Your task to perform on an android device: turn off picture-in-picture Image 0: 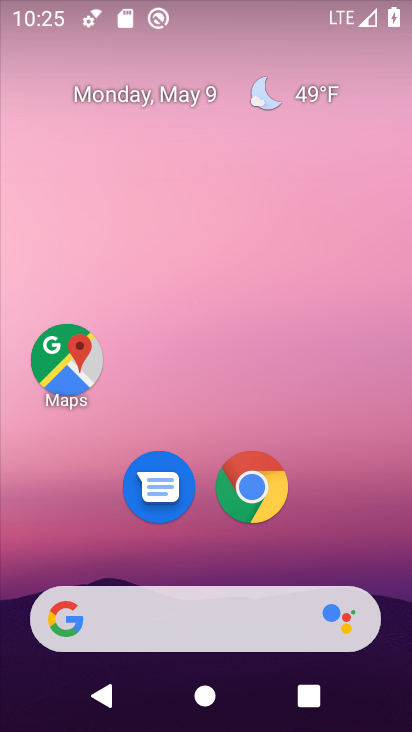
Step 0: drag from (295, 454) to (103, 107)
Your task to perform on an android device: turn off picture-in-picture Image 1: 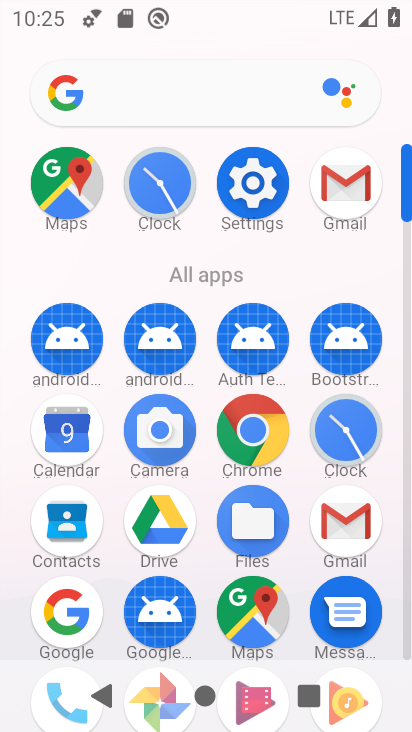
Step 1: click (251, 192)
Your task to perform on an android device: turn off picture-in-picture Image 2: 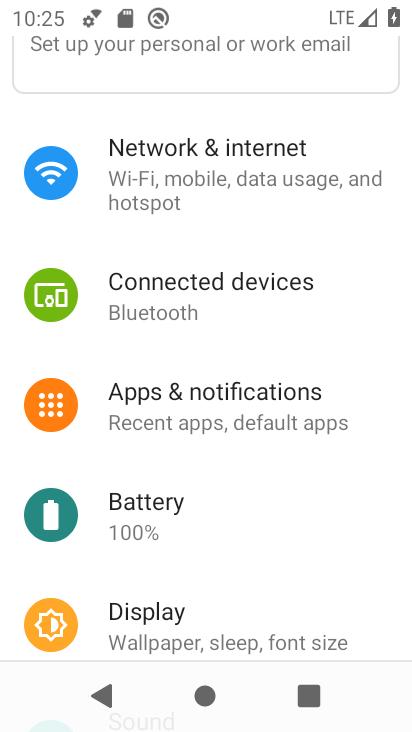
Step 2: click (196, 418)
Your task to perform on an android device: turn off picture-in-picture Image 3: 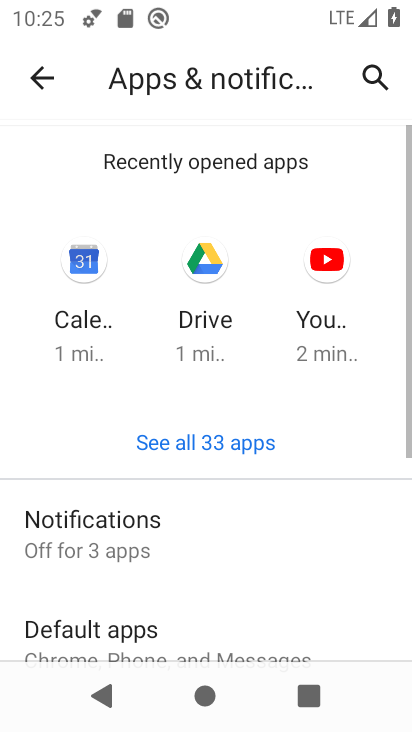
Step 3: drag from (176, 593) to (207, 194)
Your task to perform on an android device: turn off picture-in-picture Image 4: 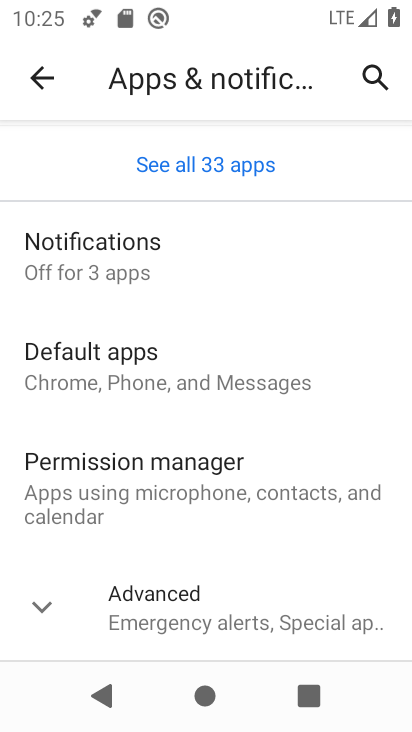
Step 4: click (169, 611)
Your task to perform on an android device: turn off picture-in-picture Image 5: 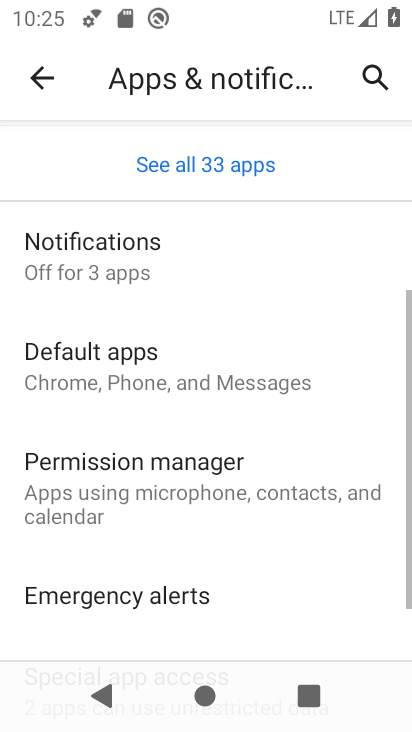
Step 5: drag from (168, 611) to (181, 211)
Your task to perform on an android device: turn off picture-in-picture Image 6: 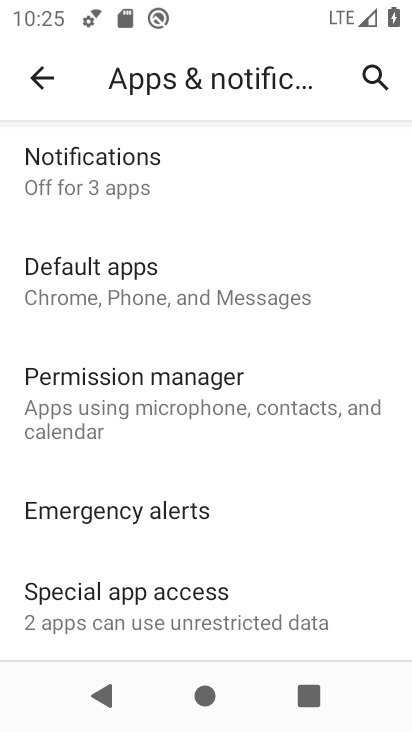
Step 6: click (141, 623)
Your task to perform on an android device: turn off picture-in-picture Image 7: 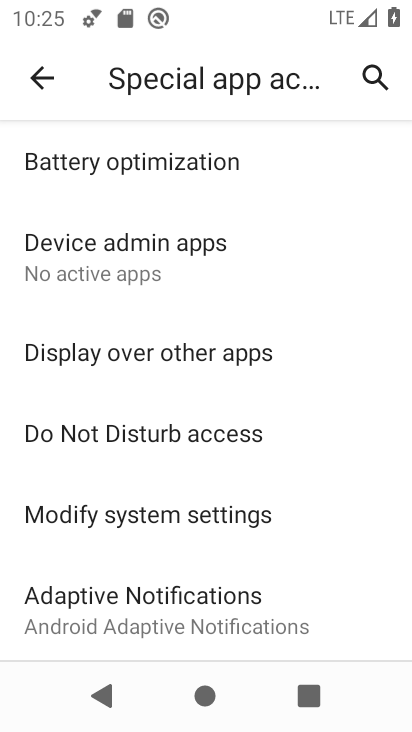
Step 7: drag from (116, 606) to (143, 260)
Your task to perform on an android device: turn off picture-in-picture Image 8: 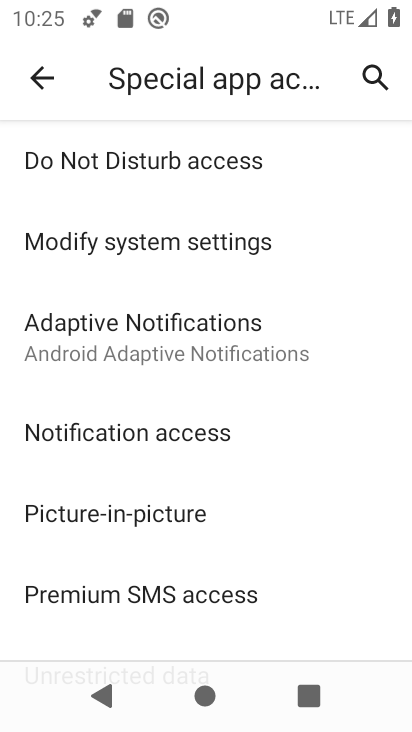
Step 8: click (131, 514)
Your task to perform on an android device: turn off picture-in-picture Image 9: 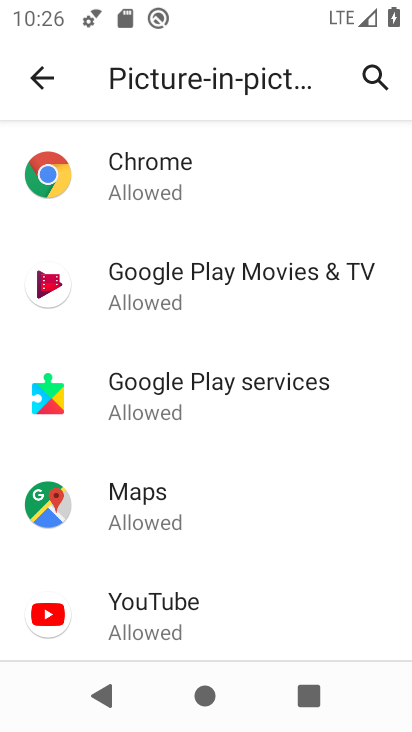
Step 9: click (155, 184)
Your task to perform on an android device: turn off picture-in-picture Image 10: 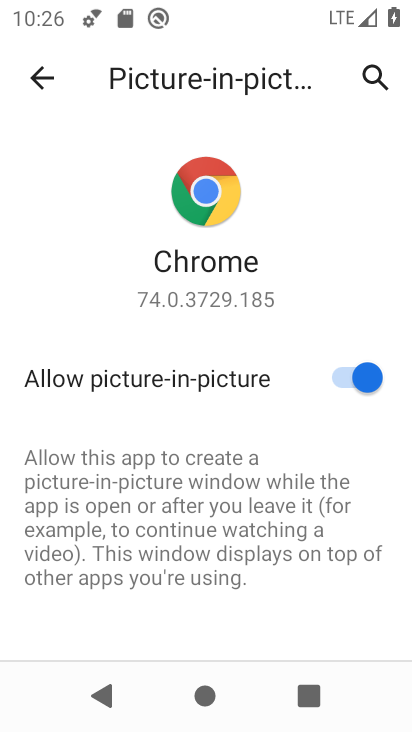
Step 10: click (367, 382)
Your task to perform on an android device: turn off picture-in-picture Image 11: 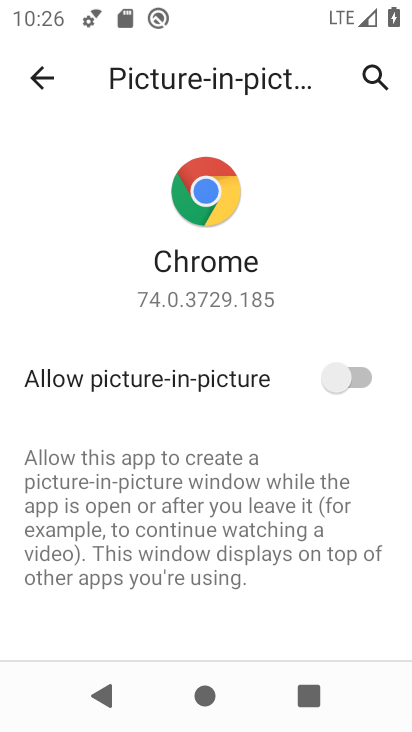
Step 11: task complete